Your task to perform on an android device: toggle translation in the chrome app Image 0: 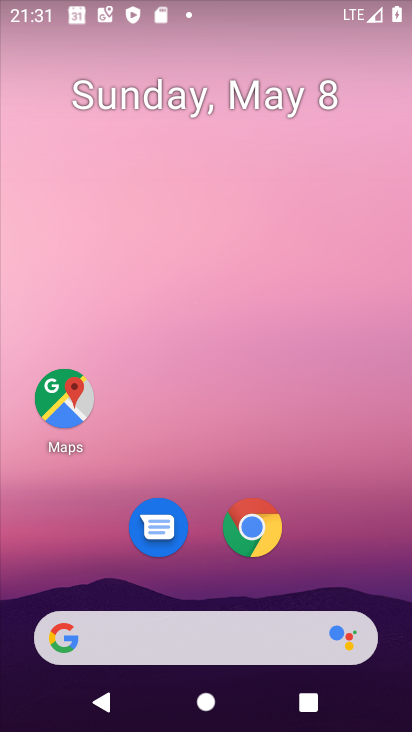
Step 0: click (252, 528)
Your task to perform on an android device: toggle translation in the chrome app Image 1: 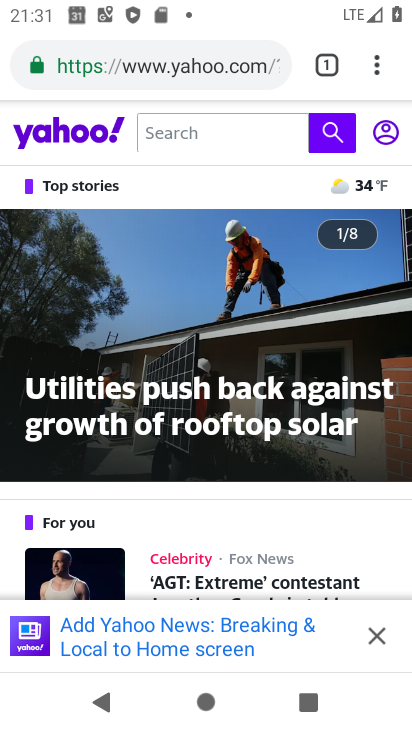
Step 1: click (371, 63)
Your task to perform on an android device: toggle translation in the chrome app Image 2: 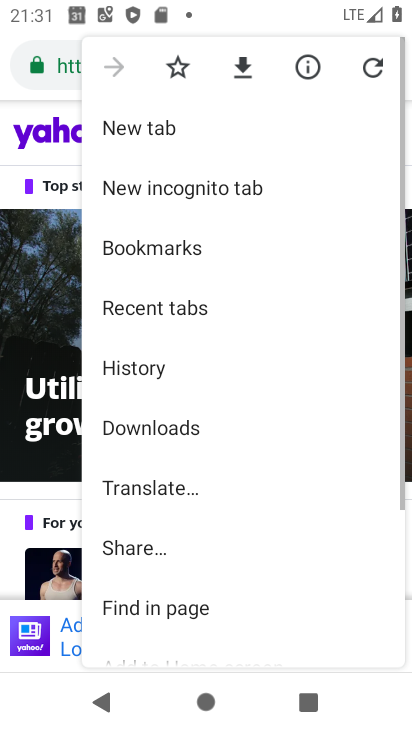
Step 2: drag from (216, 514) to (251, 28)
Your task to perform on an android device: toggle translation in the chrome app Image 3: 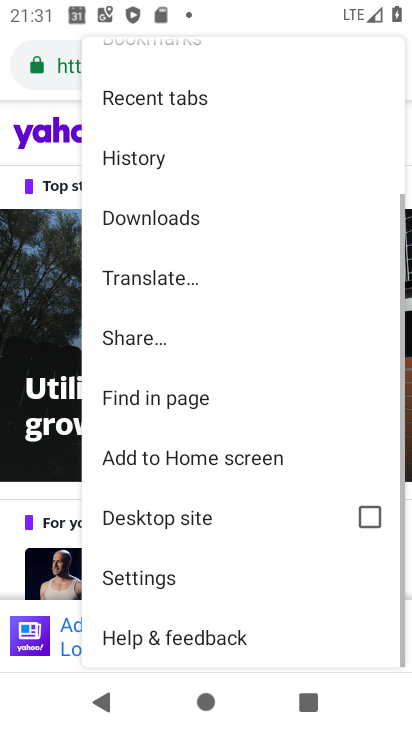
Step 3: click (147, 576)
Your task to perform on an android device: toggle translation in the chrome app Image 4: 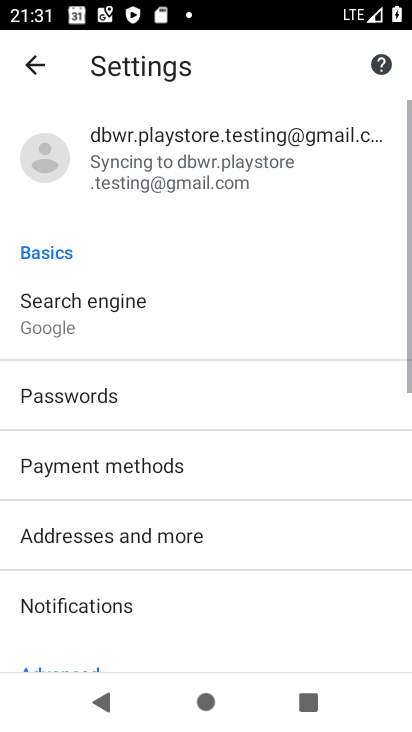
Step 4: drag from (235, 529) to (244, 114)
Your task to perform on an android device: toggle translation in the chrome app Image 5: 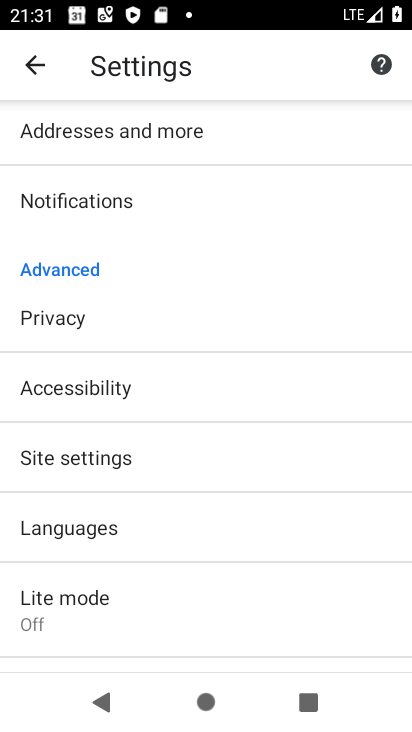
Step 5: click (135, 528)
Your task to perform on an android device: toggle translation in the chrome app Image 6: 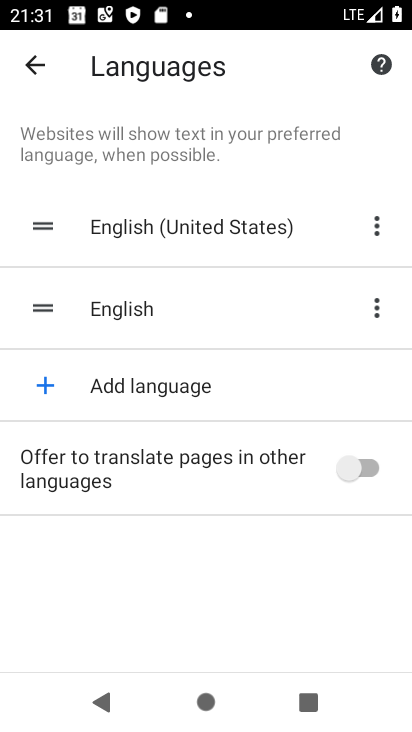
Step 6: click (353, 470)
Your task to perform on an android device: toggle translation in the chrome app Image 7: 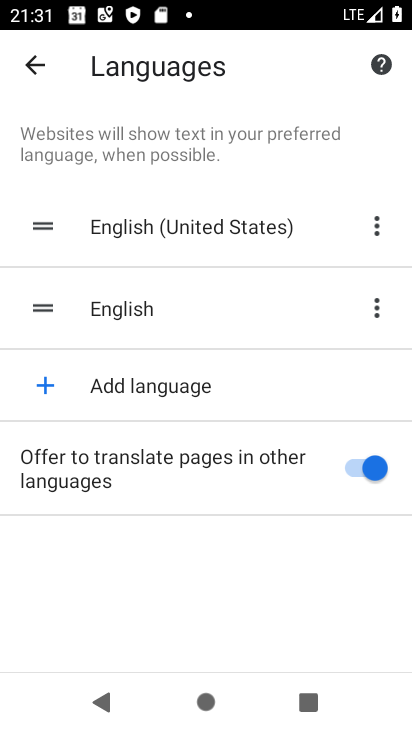
Step 7: task complete